Your task to perform on an android device: Go to accessibility settings Image 0: 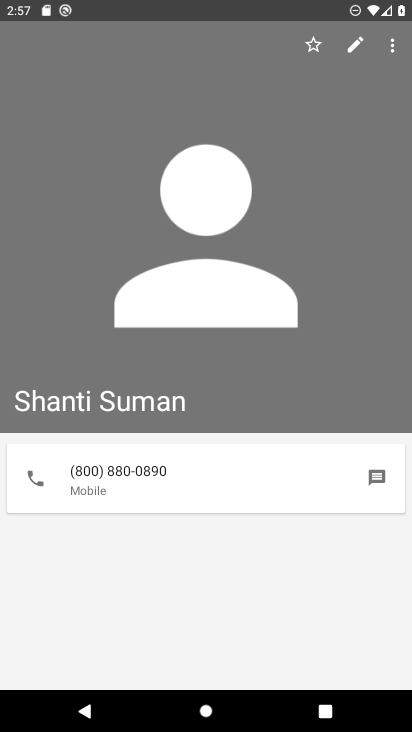
Step 0: press home button
Your task to perform on an android device: Go to accessibility settings Image 1: 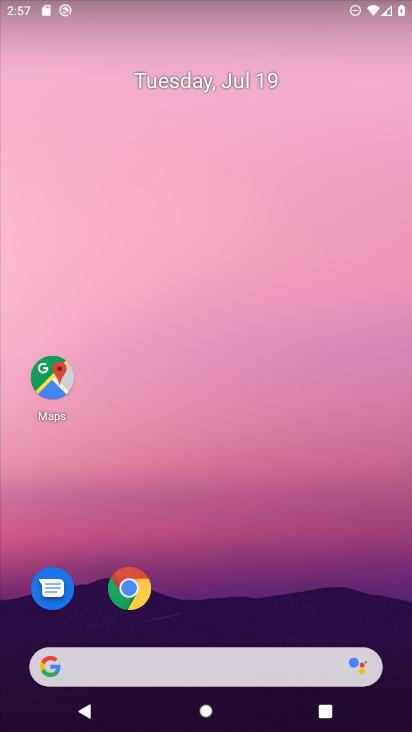
Step 1: drag from (172, 569) to (170, 311)
Your task to perform on an android device: Go to accessibility settings Image 2: 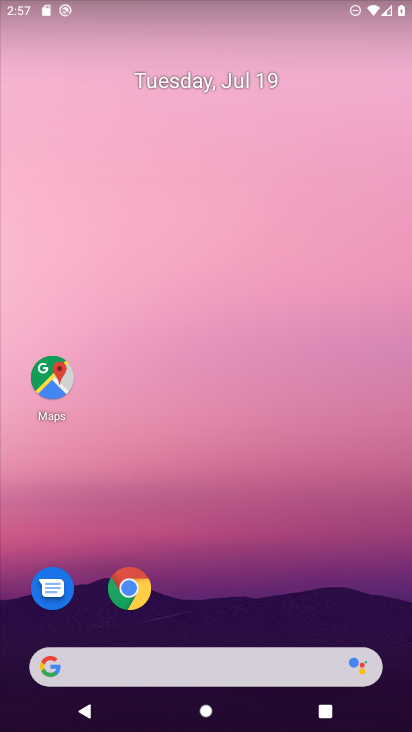
Step 2: drag from (197, 426) to (217, 141)
Your task to perform on an android device: Go to accessibility settings Image 3: 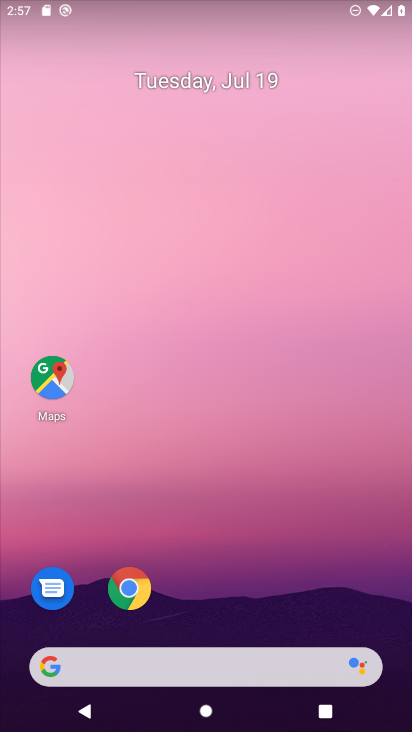
Step 3: drag from (224, 482) to (224, 185)
Your task to perform on an android device: Go to accessibility settings Image 4: 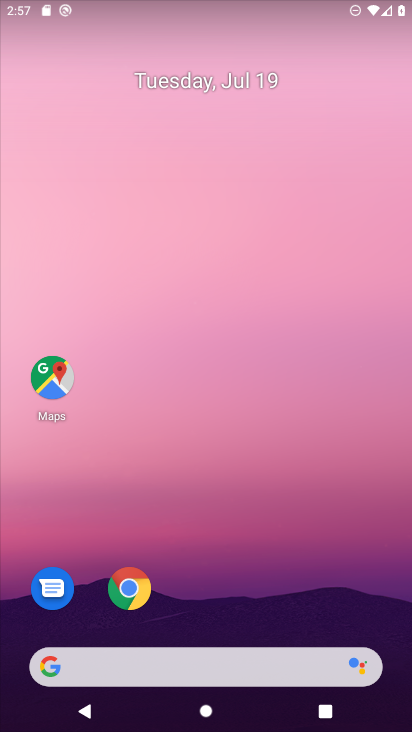
Step 4: drag from (189, 525) to (212, 23)
Your task to perform on an android device: Go to accessibility settings Image 5: 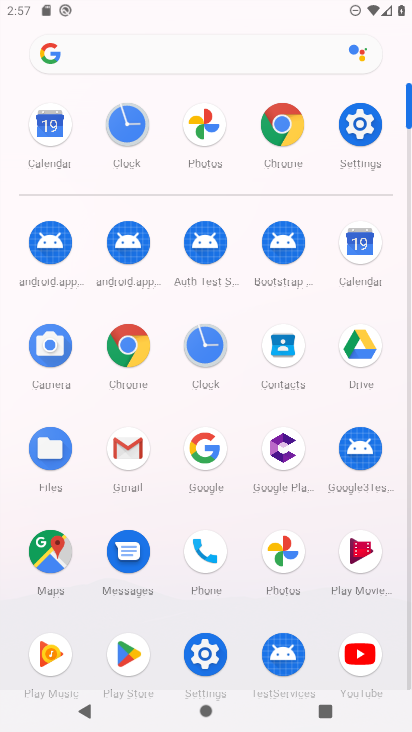
Step 5: click (355, 123)
Your task to perform on an android device: Go to accessibility settings Image 6: 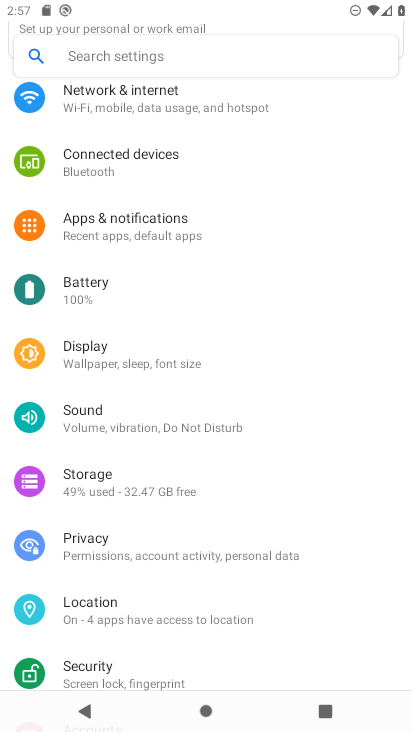
Step 6: drag from (129, 593) to (148, 280)
Your task to perform on an android device: Go to accessibility settings Image 7: 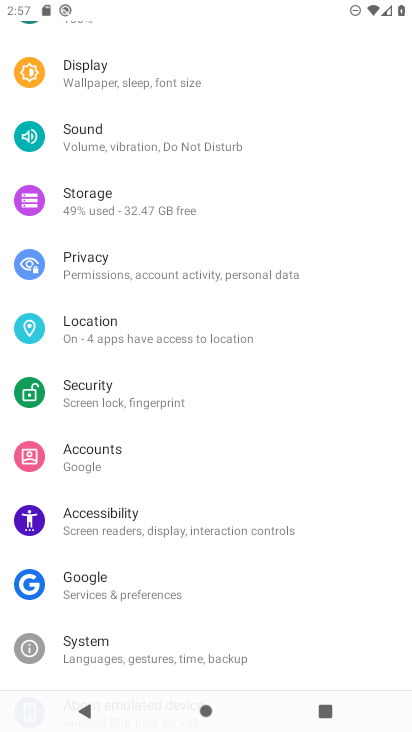
Step 7: click (119, 522)
Your task to perform on an android device: Go to accessibility settings Image 8: 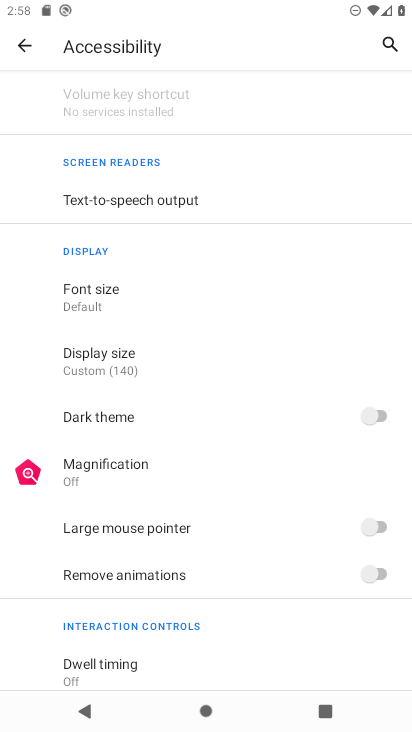
Step 8: task complete